Your task to perform on an android device: Go to battery settings Image 0: 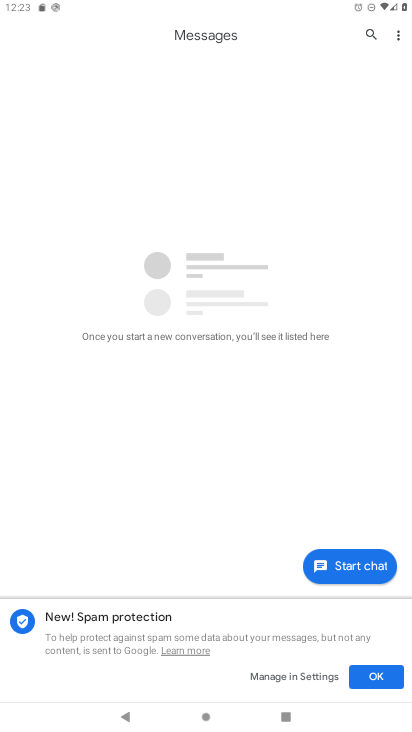
Step 0: press home button
Your task to perform on an android device: Go to battery settings Image 1: 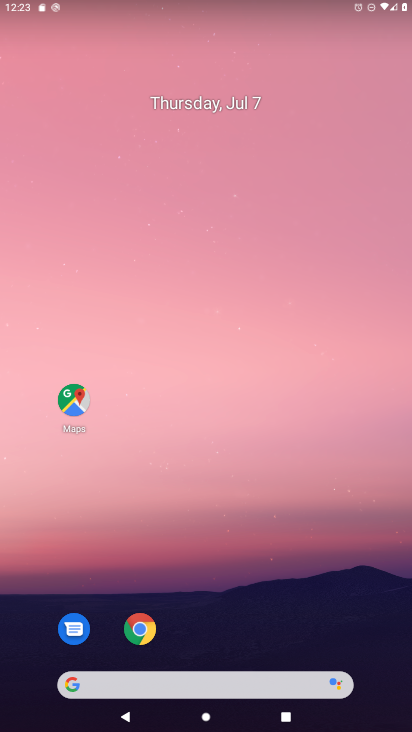
Step 1: drag from (214, 635) to (194, 128)
Your task to perform on an android device: Go to battery settings Image 2: 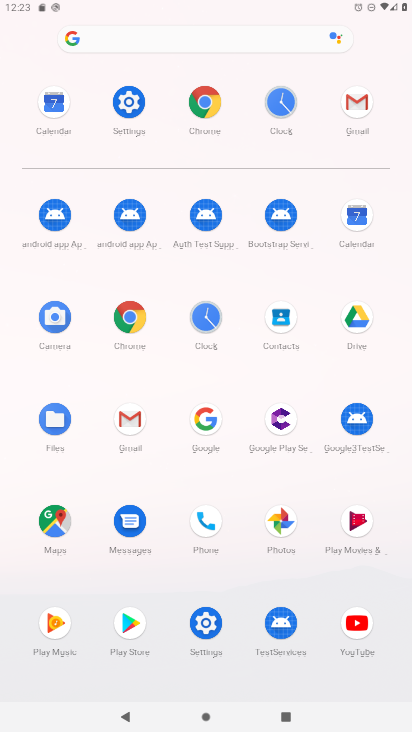
Step 2: click (140, 117)
Your task to perform on an android device: Go to battery settings Image 3: 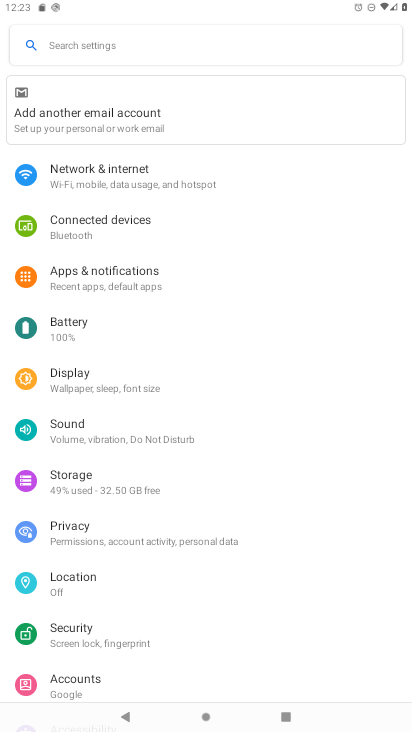
Step 3: click (114, 339)
Your task to perform on an android device: Go to battery settings Image 4: 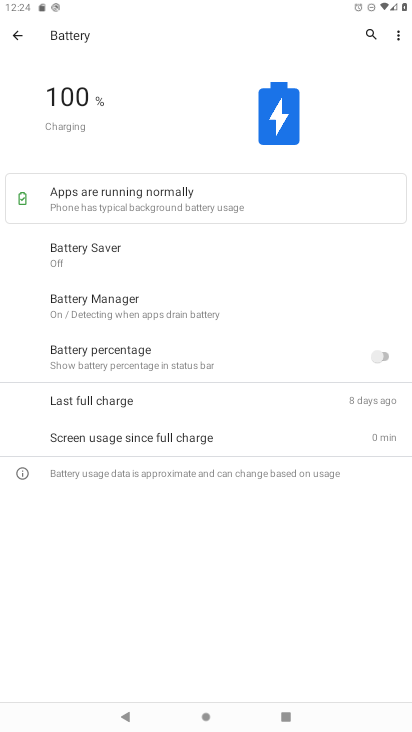
Step 4: task complete